Your task to perform on an android device: turn off javascript in the chrome app Image 0: 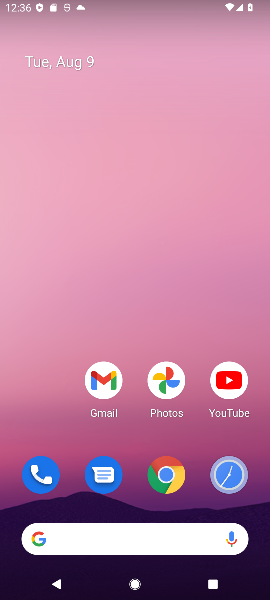
Step 0: click (161, 471)
Your task to perform on an android device: turn off javascript in the chrome app Image 1: 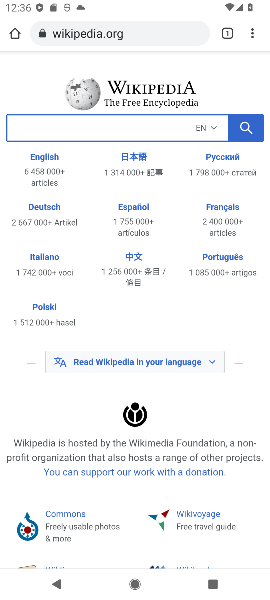
Step 1: click (250, 40)
Your task to perform on an android device: turn off javascript in the chrome app Image 2: 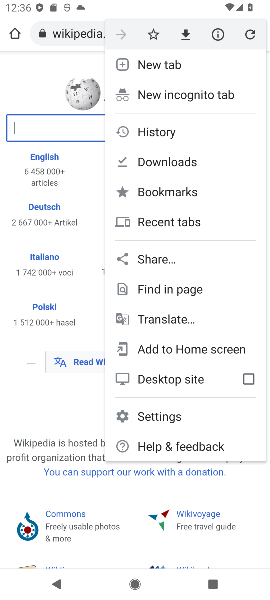
Step 2: click (155, 410)
Your task to perform on an android device: turn off javascript in the chrome app Image 3: 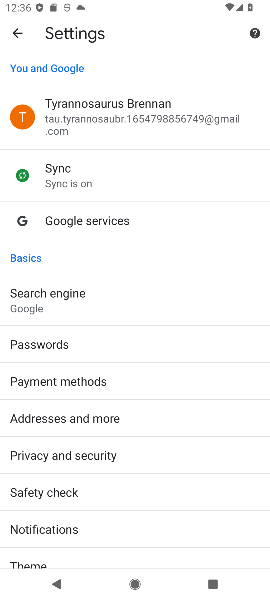
Step 3: drag from (92, 527) to (91, 142)
Your task to perform on an android device: turn off javascript in the chrome app Image 4: 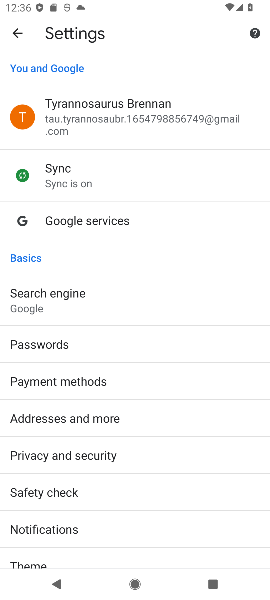
Step 4: drag from (78, 432) to (122, 16)
Your task to perform on an android device: turn off javascript in the chrome app Image 5: 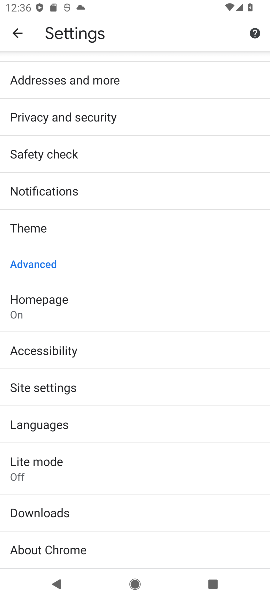
Step 5: click (114, 391)
Your task to perform on an android device: turn off javascript in the chrome app Image 6: 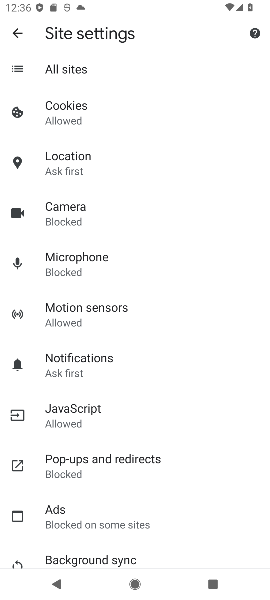
Step 6: click (97, 424)
Your task to perform on an android device: turn off javascript in the chrome app Image 7: 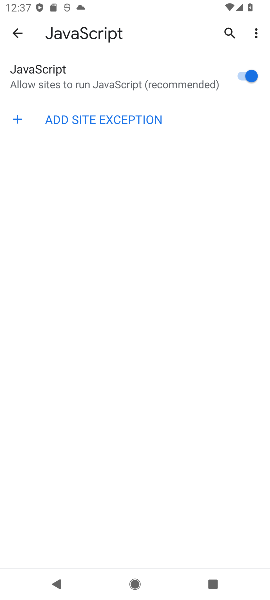
Step 7: click (239, 81)
Your task to perform on an android device: turn off javascript in the chrome app Image 8: 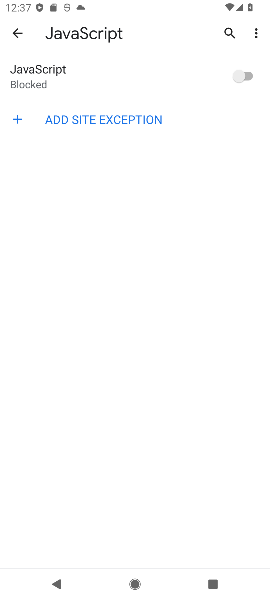
Step 8: task complete